Your task to perform on an android device: show emergency info Image 0: 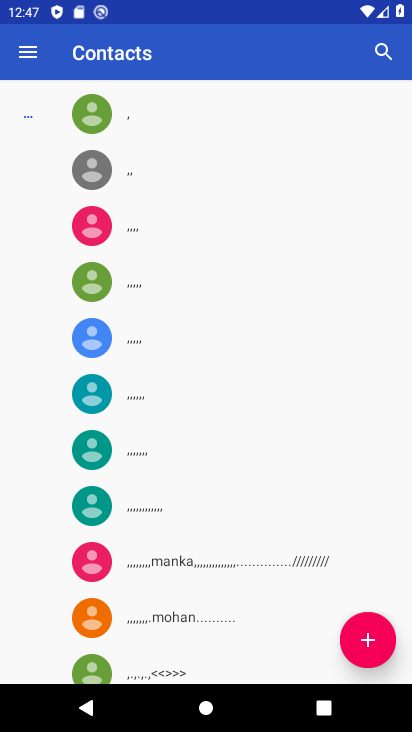
Step 0: press home button
Your task to perform on an android device: show emergency info Image 1: 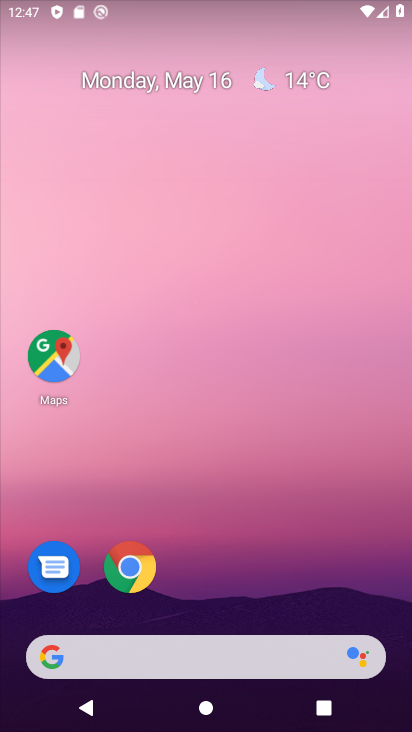
Step 1: drag from (226, 576) to (100, 75)
Your task to perform on an android device: show emergency info Image 2: 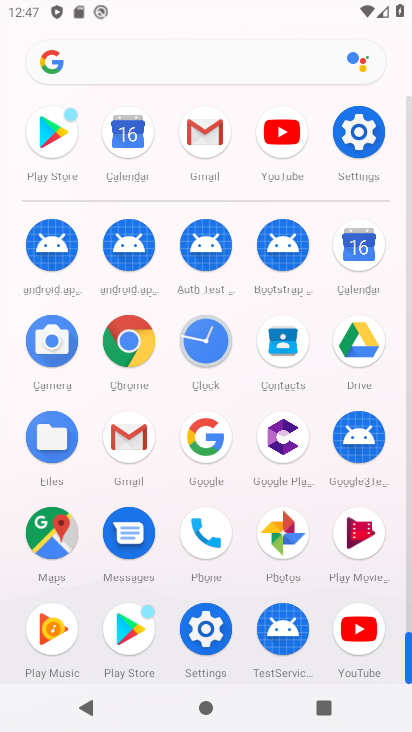
Step 2: click (359, 133)
Your task to perform on an android device: show emergency info Image 3: 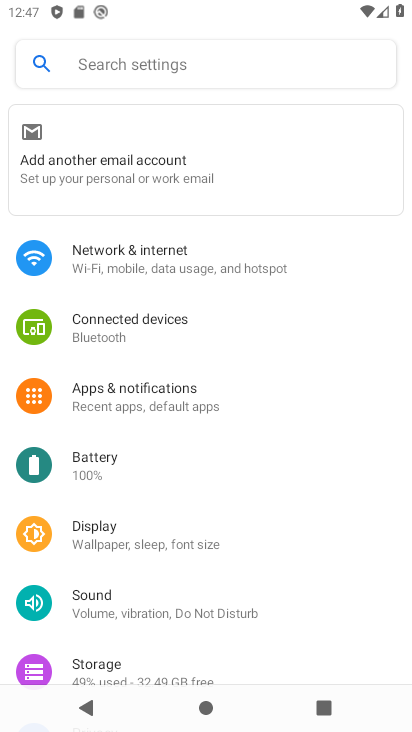
Step 3: drag from (178, 562) to (129, 216)
Your task to perform on an android device: show emergency info Image 4: 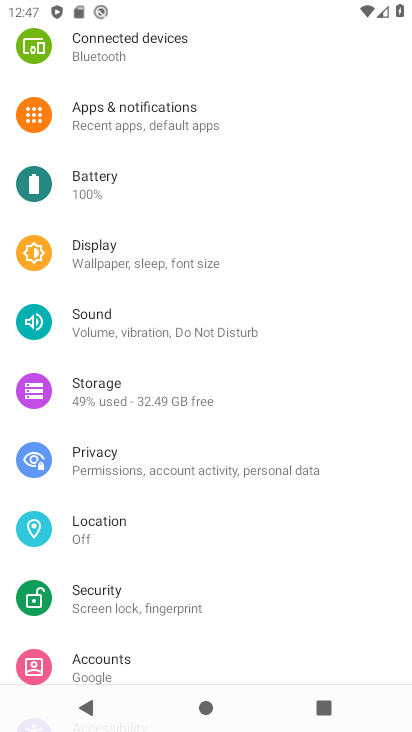
Step 4: drag from (236, 562) to (163, 191)
Your task to perform on an android device: show emergency info Image 5: 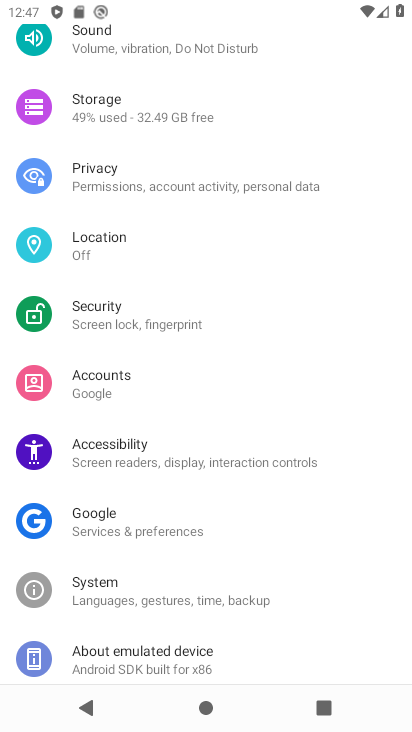
Step 5: drag from (182, 548) to (164, 213)
Your task to perform on an android device: show emergency info Image 6: 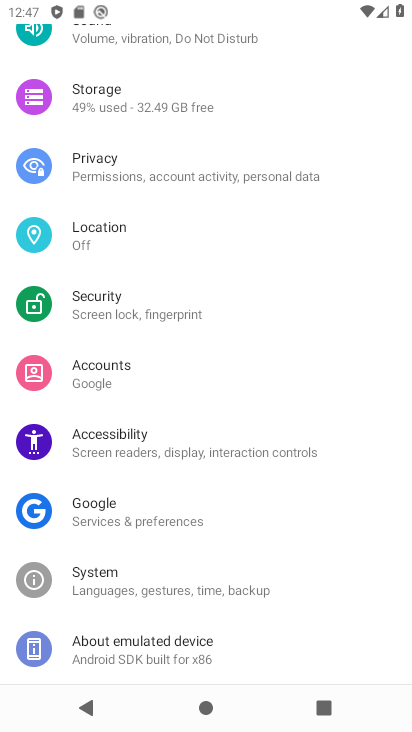
Step 6: click (137, 646)
Your task to perform on an android device: show emergency info Image 7: 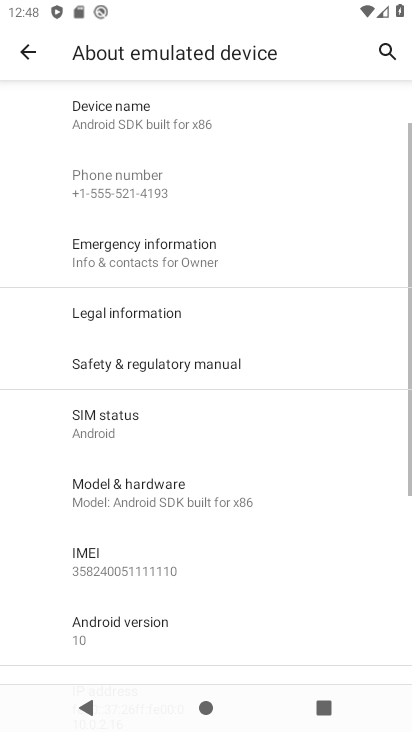
Step 7: task complete